Your task to perform on an android device: View the shopping cart on ebay. Search for amazon basics triple a on ebay, select the first entry, add it to the cart, then select checkout. Image 0: 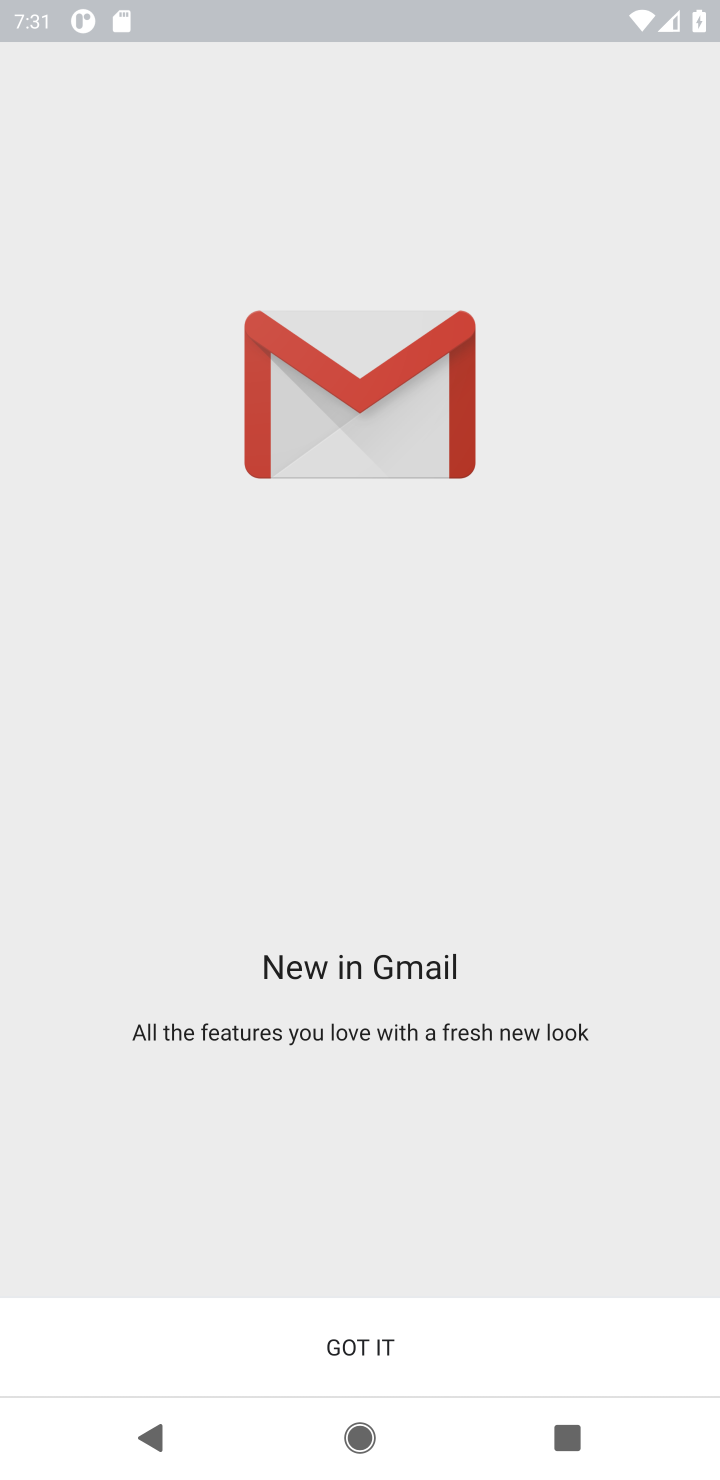
Step 0: press home button
Your task to perform on an android device: View the shopping cart on ebay. Search for amazon basics triple a on ebay, select the first entry, add it to the cart, then select checkout. Image 1: 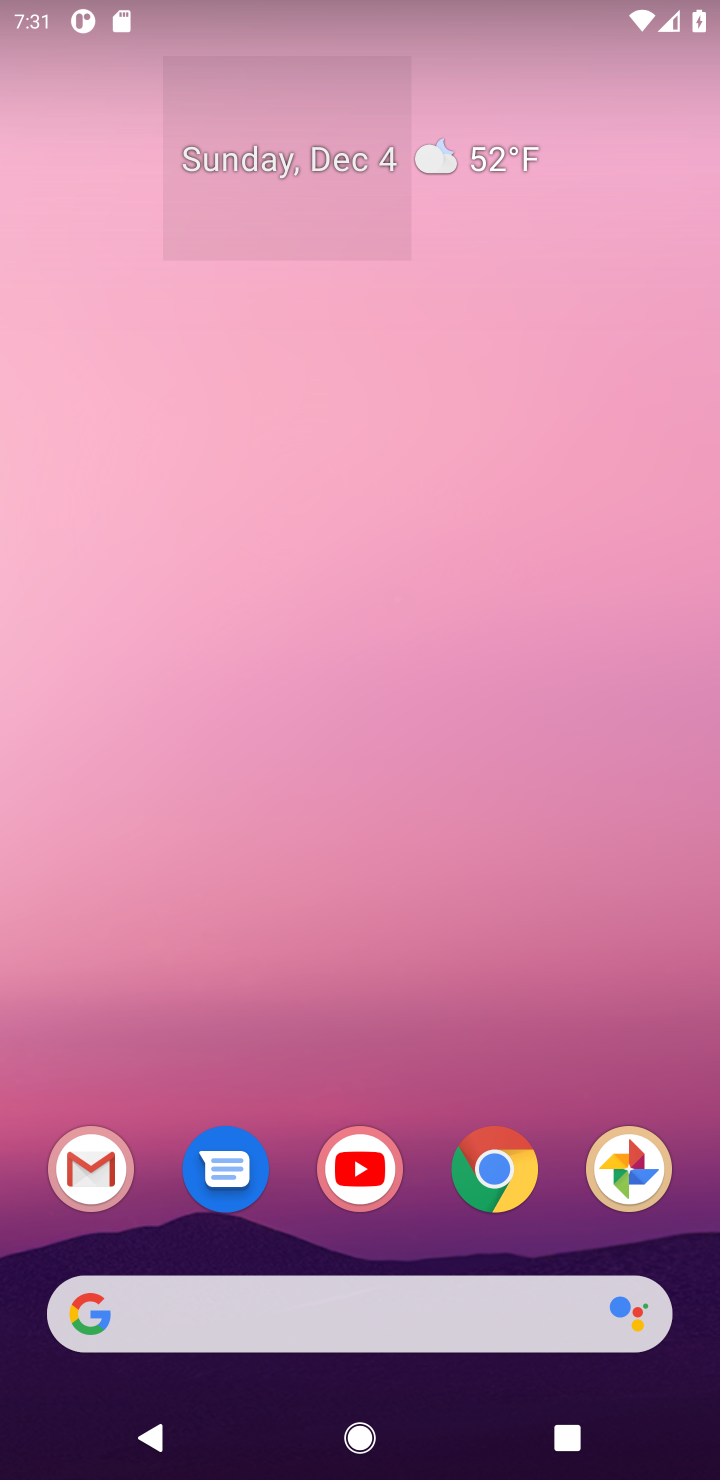
Step 1: click (489, 1151)
Your task to perform on an android device: View the shopping cart on ebay. Search for amazon basics triple a on ebay, select the first entry, add it to the cart, then select checkout. Image 2: 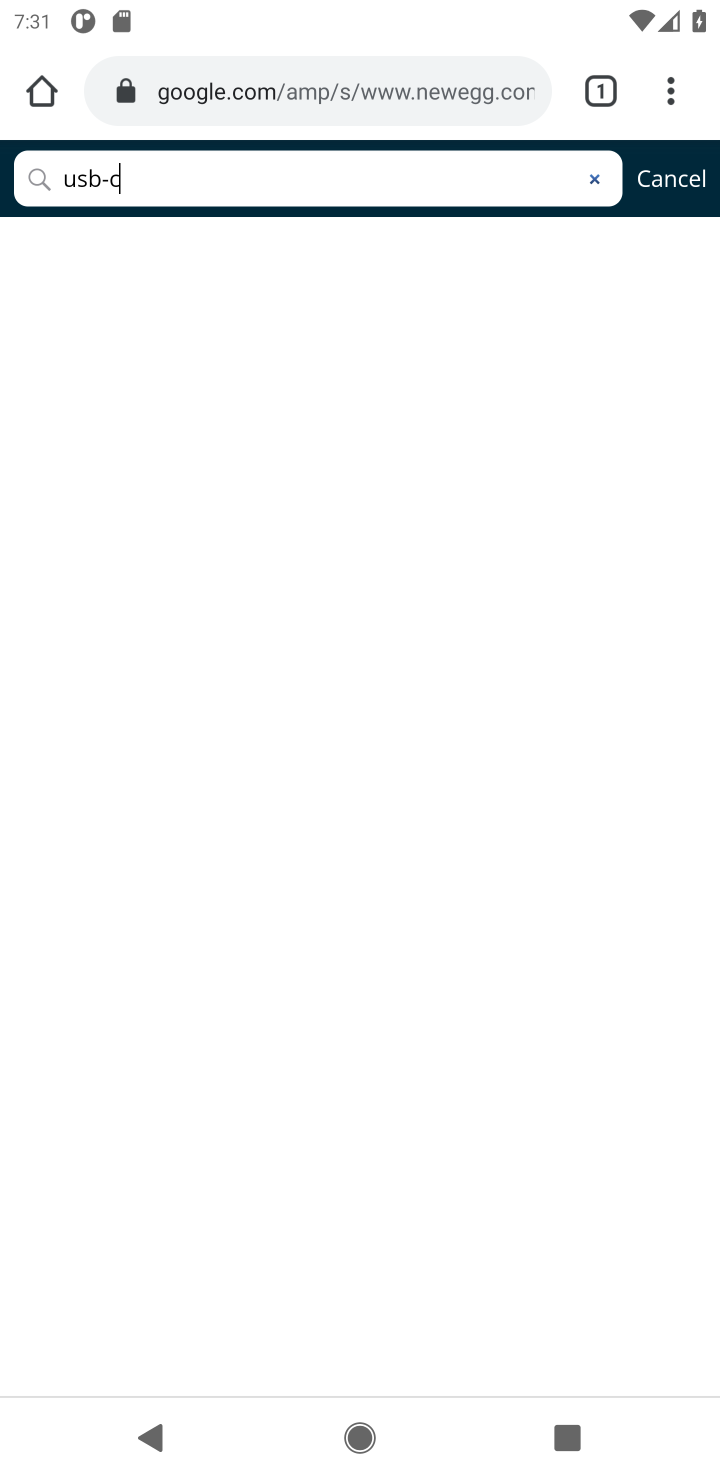
Step 2: click (382, 80)
Your task to perform on an android device: View the shopping cart on ebay. Search for amazon basics triple a on ebay, select the first entry, add it to the cart, then select checkout. Image 3: 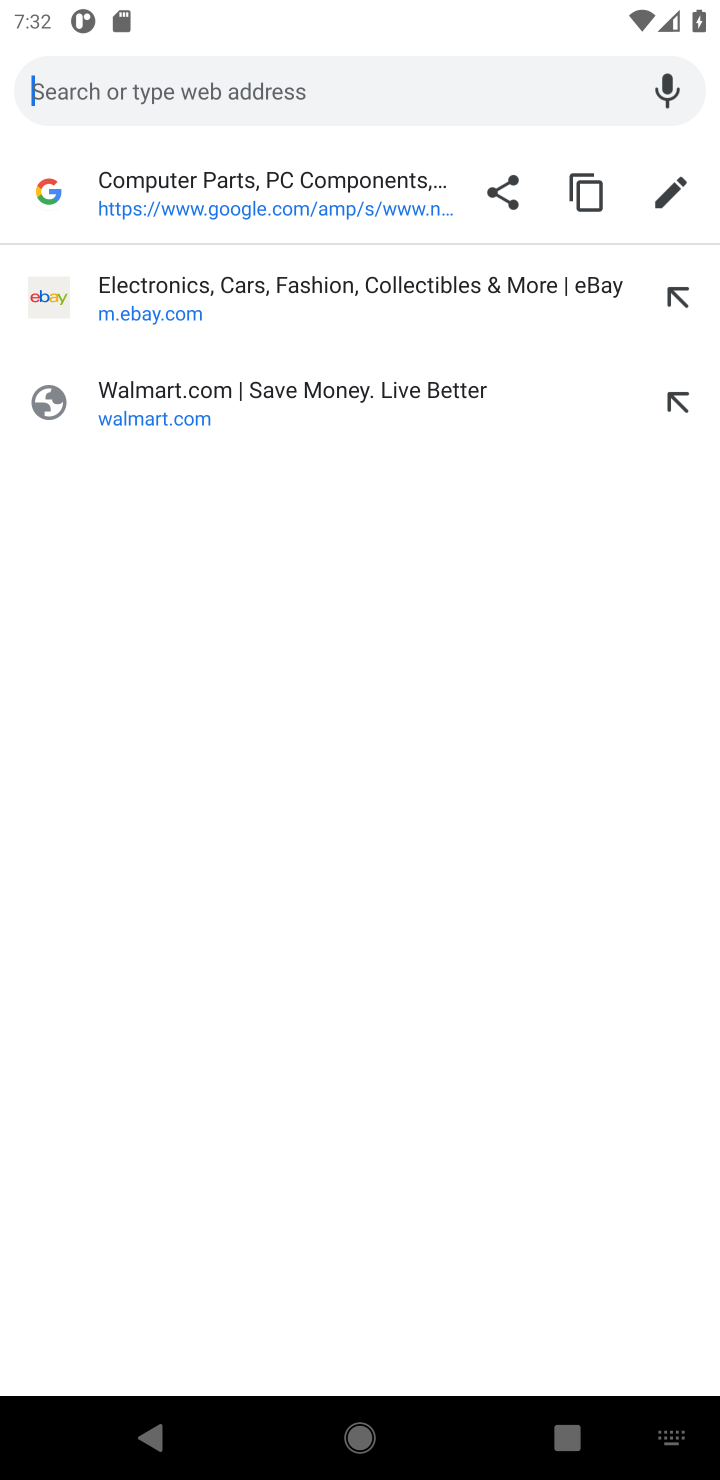
Step 3: click (294, 310)
Your task to perform on an android device: View the shopping cart on ebay. Search for amazon basics triple a on ebay, select the first entry, add it to the cart, then select checkout. Image 4: 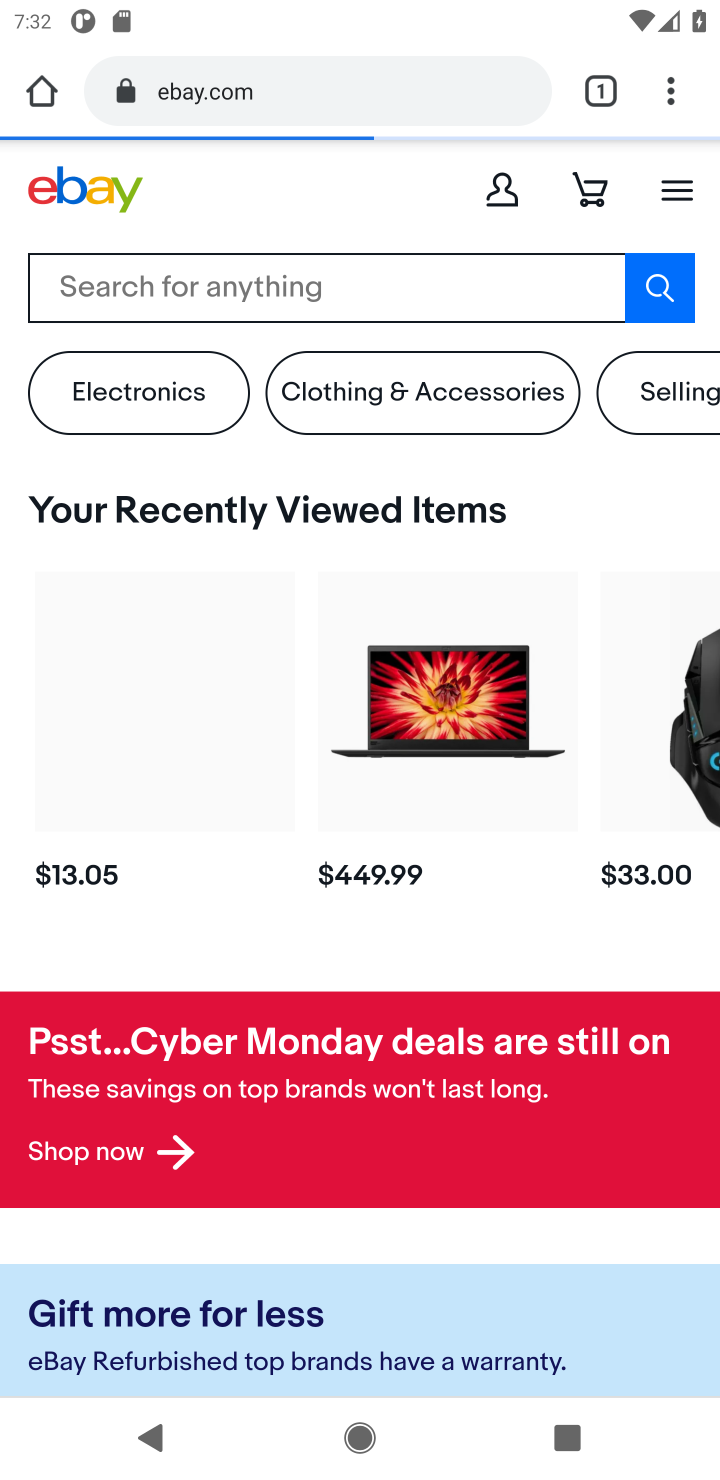
Step 4: click (469, 295)
Your task to perform on an android device: View the shopping cart on ebay. Search for amazon basics triple a on ebay, select the first entry, add it to the cart, then select checkout. Image 5: 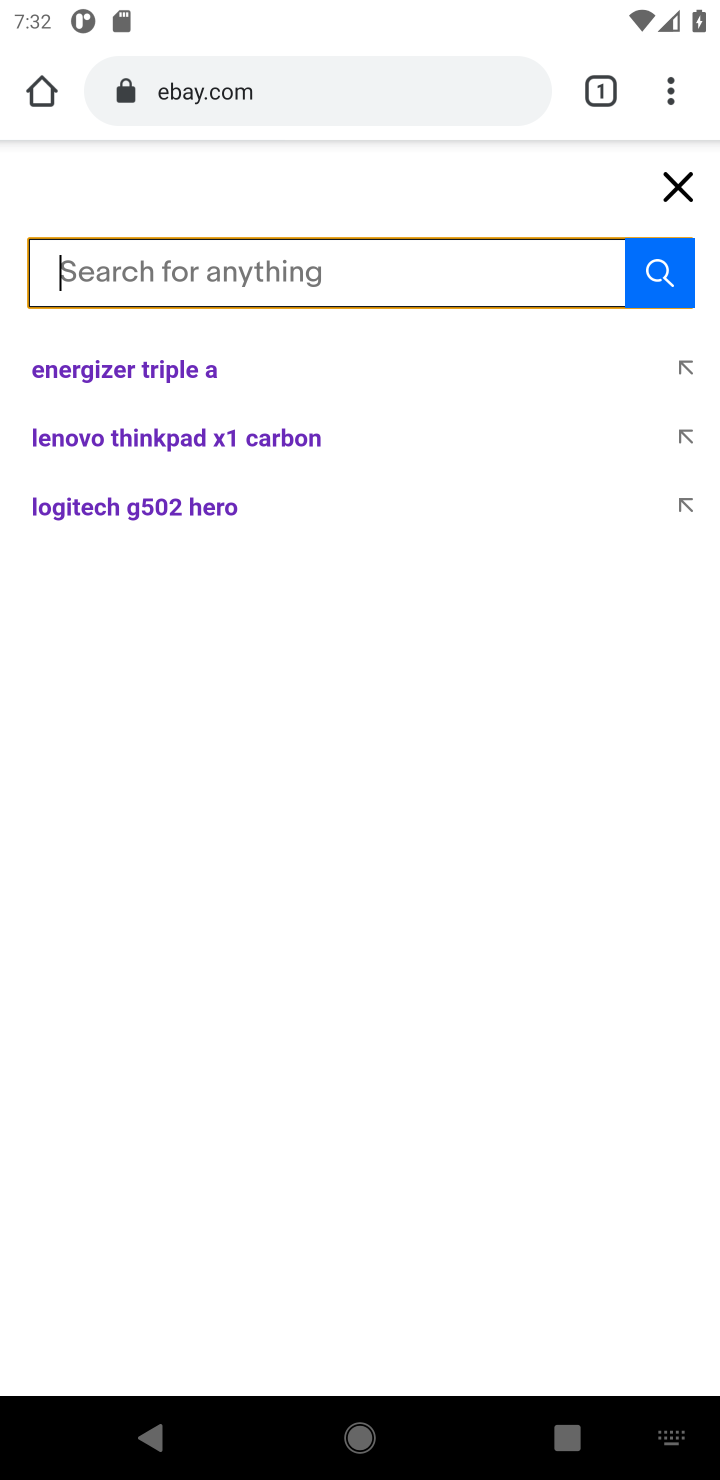
Step 5: type "amazon basics triple a"
Your task to perform on an android device: View the shopping cart on ebay. Search for amazon basics triple a on ebay, select the first entry, add it to the cart, then select checkout. Image 6: 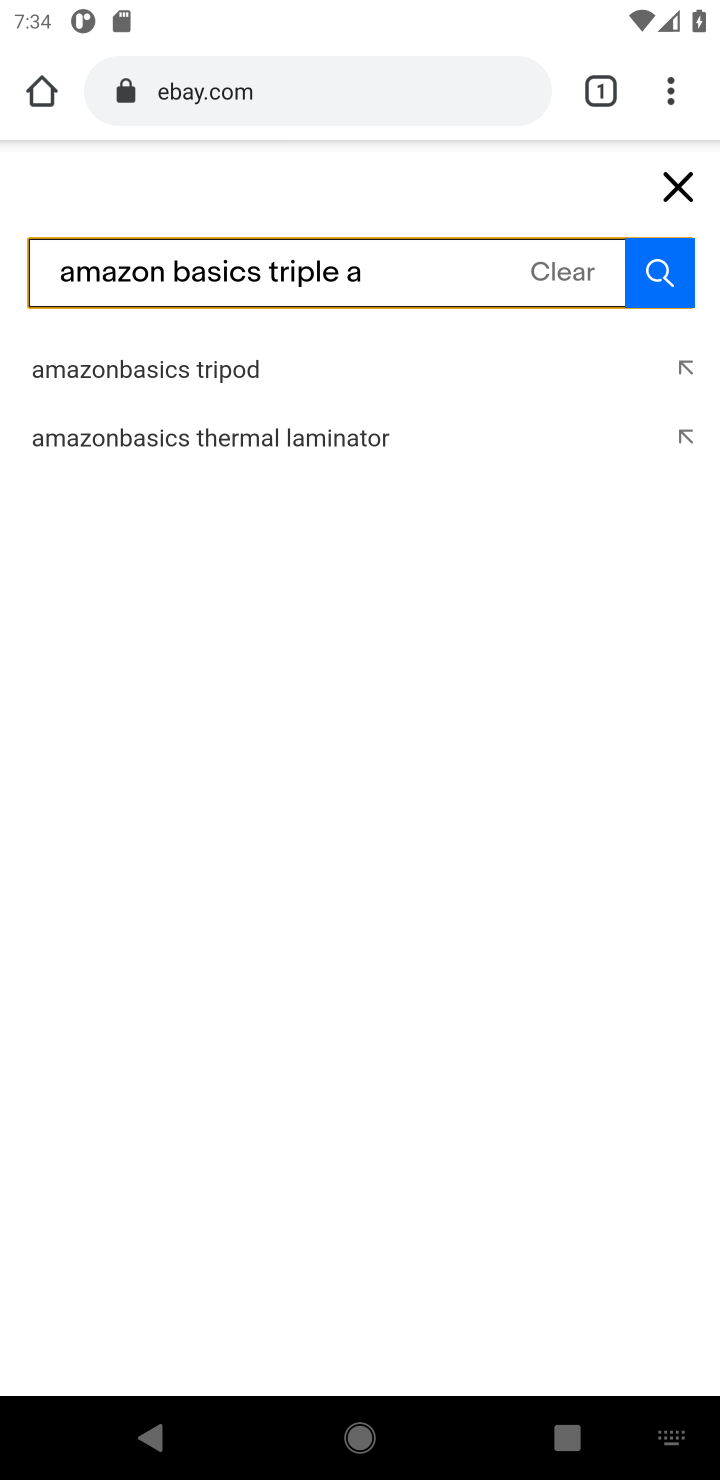
Step 6: click (262, 371)
Your task to perform on an android device: View the shopping cart on ebay. Search for amazon basics triple a on ebay, select the first entry, add it to the cart, then select checkout. Image 7: 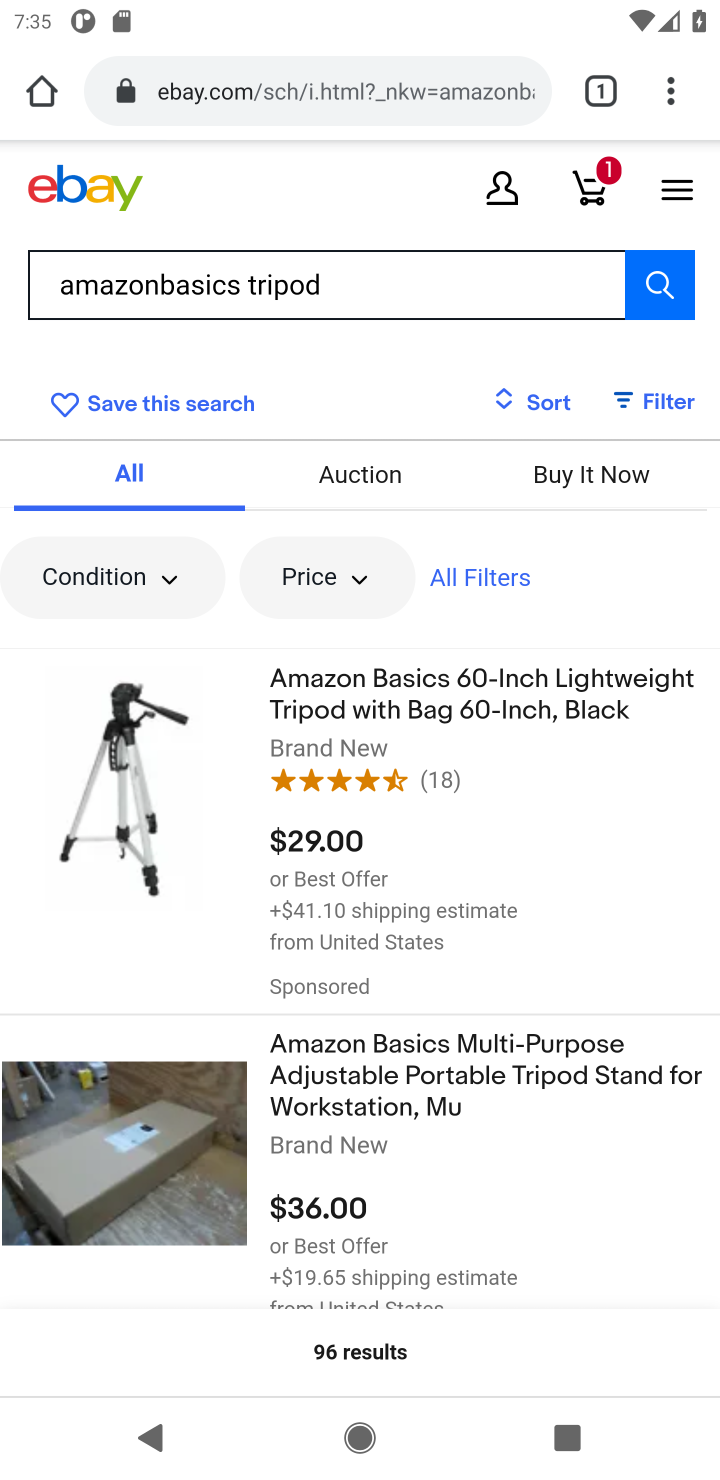
Step 7: click (140, 823)
Your task to perform on an android device: View the shopping cart on ebay. Search for amazon basics triple a on ebay, select the first entry, add it to the cart, then select checkout. Image 8: 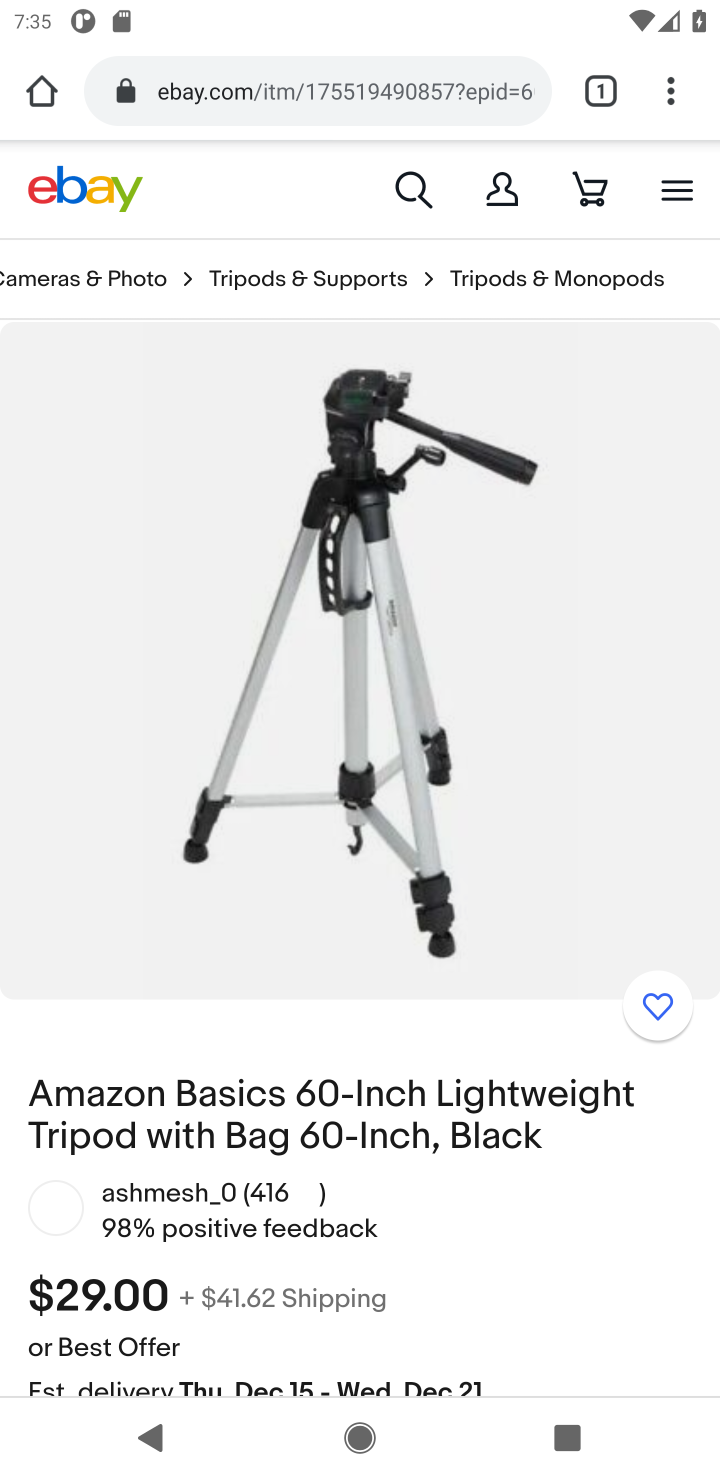
Step 8: drag from (435, 1263) to (458, 496)
Your task to perform on an android device: View the shopping cart on ebay. Search for amazon basics triple a on ebay, select the first entry, add it to the cart, then select checkout. Image 9: 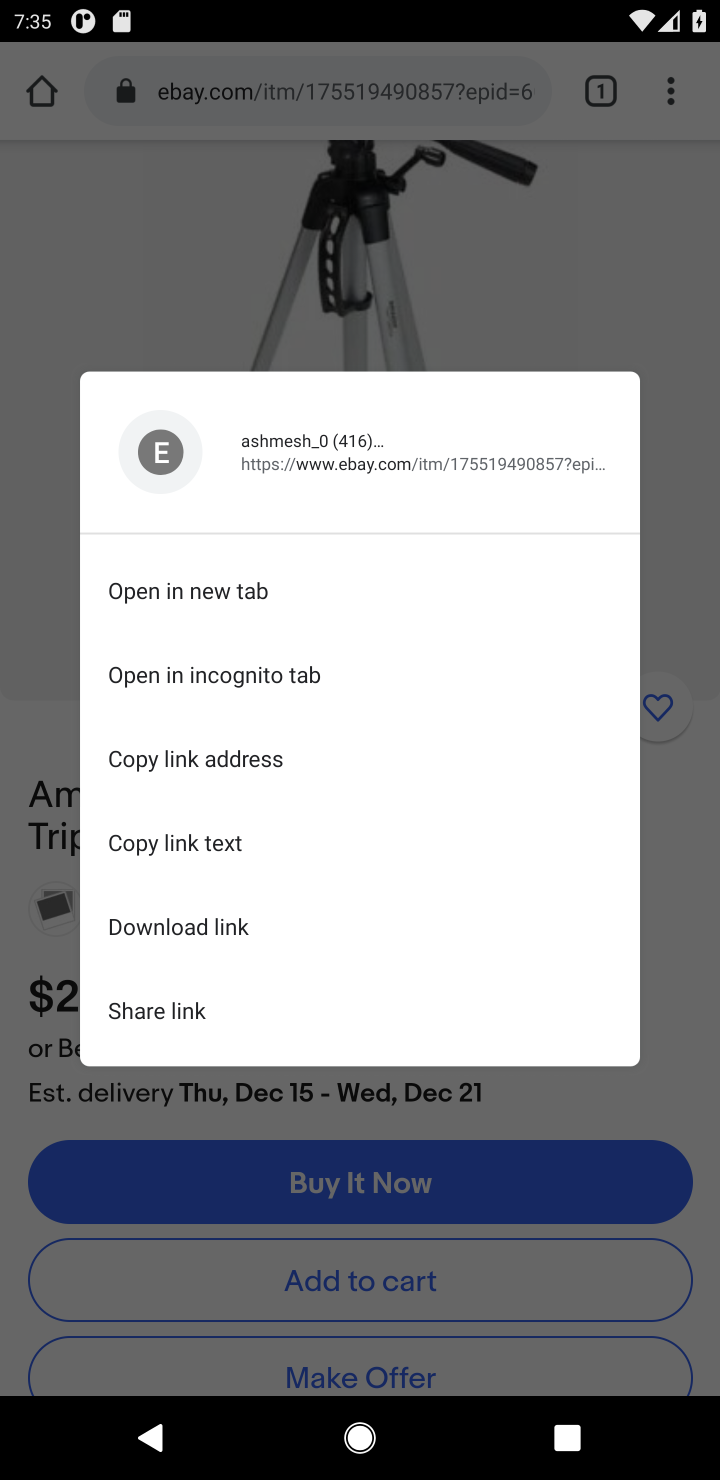
Step 9: click (682, 1013)
Your task to perform on an android device: View the shopping cart on ebay. Search for amazon basics triple a on ebay, select the first entry, add it to the cart, then select checkout. Image 10: 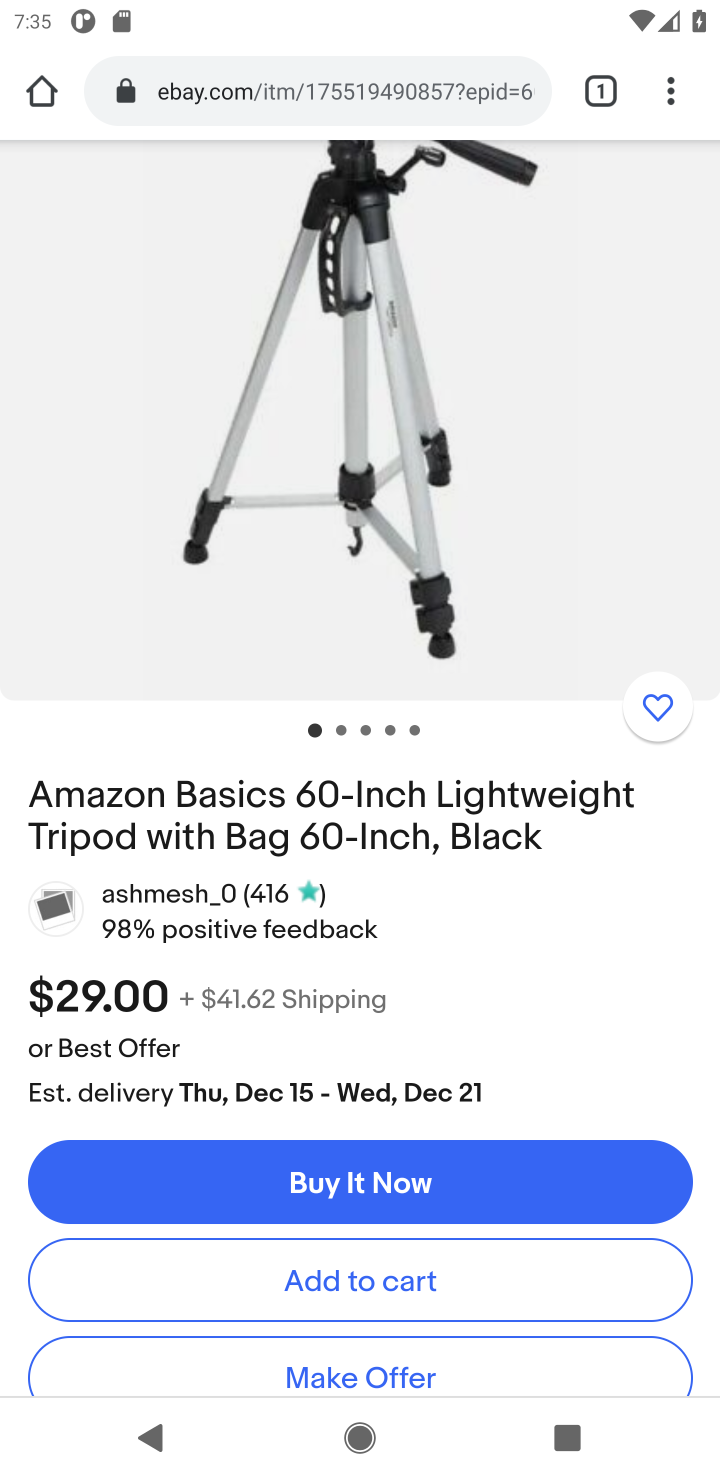
Step 10: click (408, 1282)
Your task to perform on an android device: View the shopping cart on ebay. Search for amazon basics triple a on ebay, select the first entry, add it to the cart, then select checkout. Image 11: 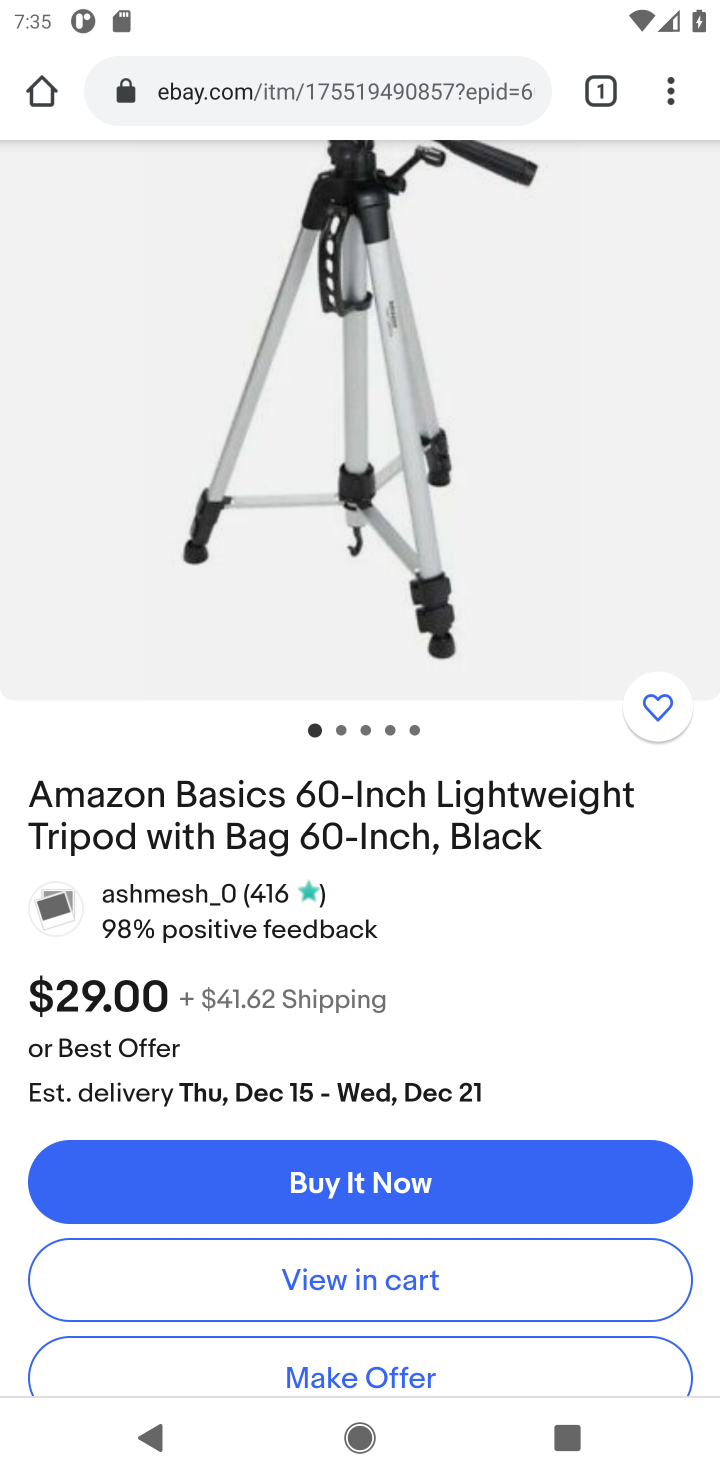
Step 11: task complete